Your task to perform on an android device: toggle improve location accuracy Image 0: 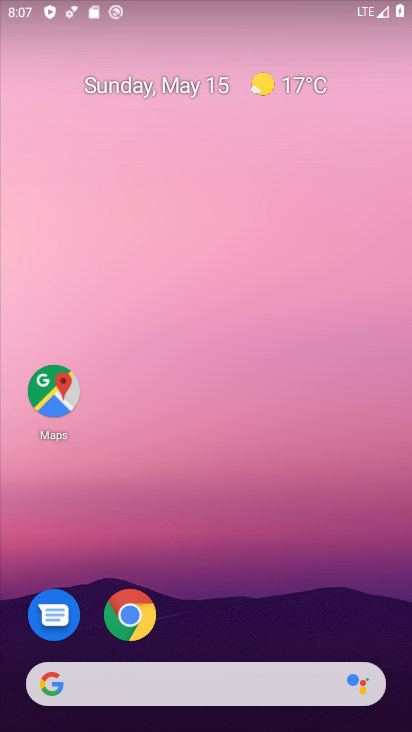
Step 0: drag from (197, 641) to (249, 180)
Your task to perform on an android device: toggle improve location accuracy Image 1: 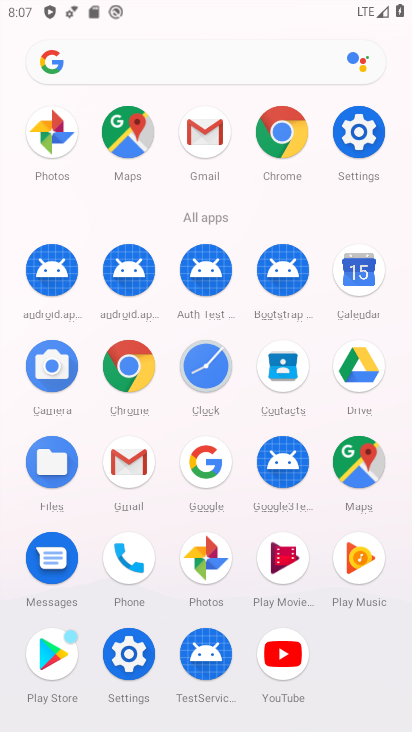
Step 1: click (372, 146)
Your task to perform on an android device: toggle improve location accuracy Image 2: 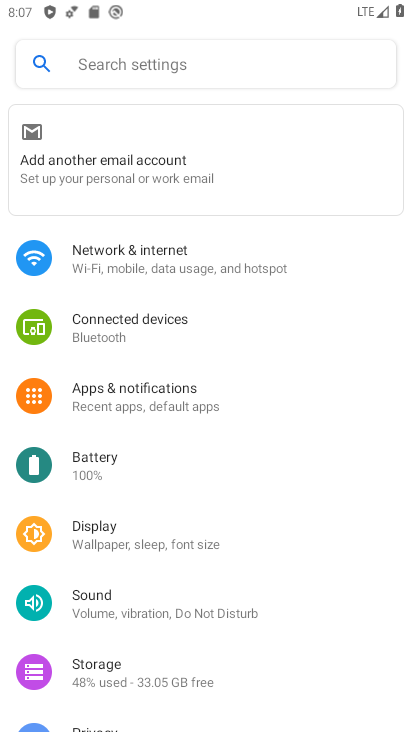
Step 2: drag from (144, 682) to (171, 262)
Your task to perform on an android device: toggle improve location accuracy Image 3: 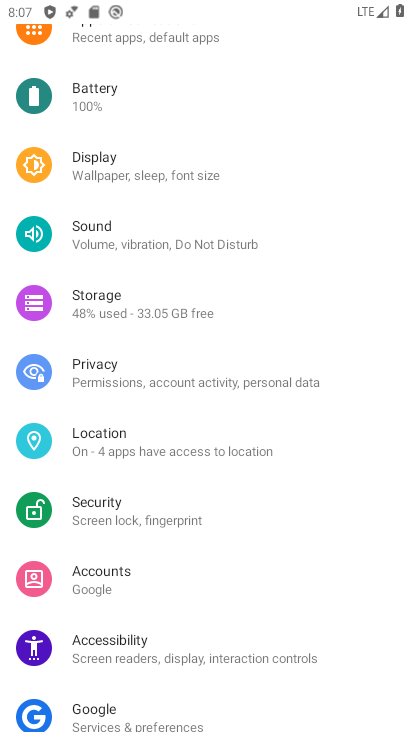
Step 3: click (153, 449)
Your task to perform on an android device: toggle improve location accuracy Image 4: 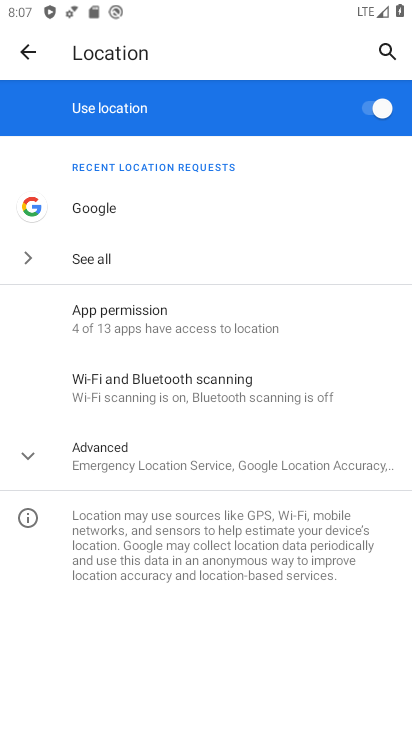
Step 4: click (148, 477)
Your task to perform on an android device: toggle improve location accuracy Image 5: 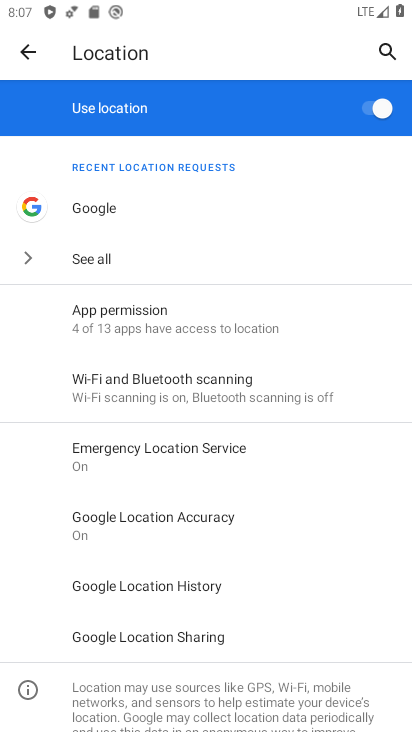
Step 5: click (165, 523)
Your task to perform on an android device: toggle improve location accuracy Image 6: 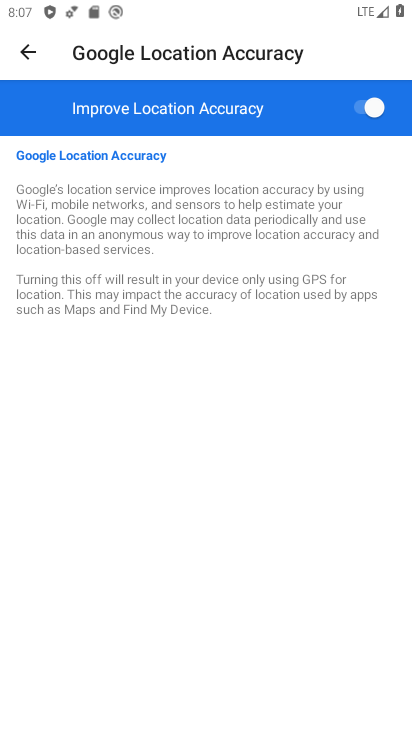
Step 6: task complete